Your task to perform on an android device: Do I have any events today? Image 0: 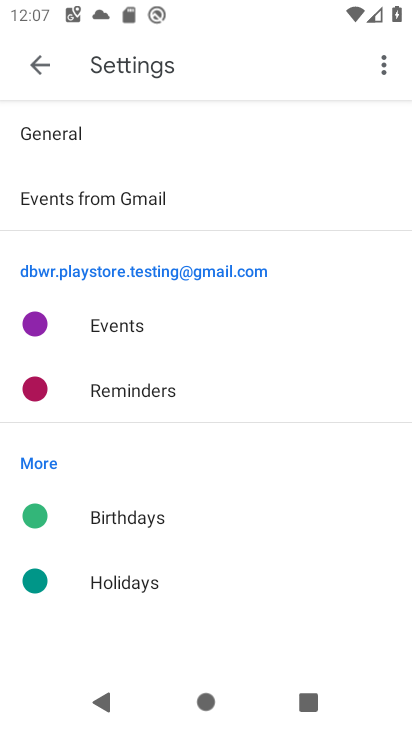
Step 0: press home button
Your task to perform on an android device: Do I have any events today? Image 1: 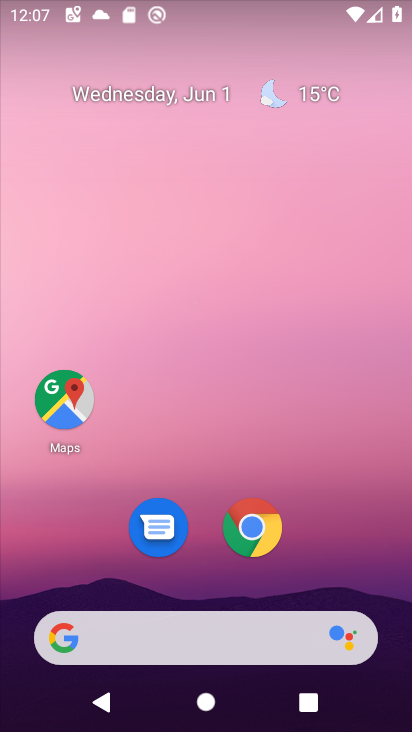
Step 1: drag from (324, 578) to (276, 2)
Your task to perform on an android device: Do I have any events today? Image 2: 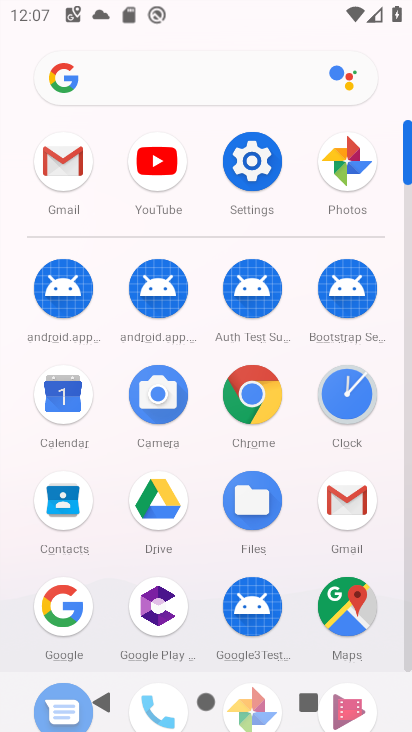
Step 2: click (61, 392)
Your task to perform on an android device: Do I have any events today? Image 3: 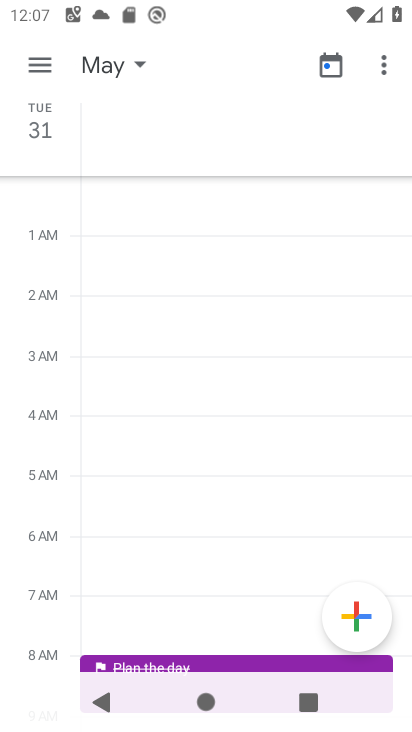
Step 3: click (334, 65)
Your task to perform on an android device: Do I have any events today? Image 4: 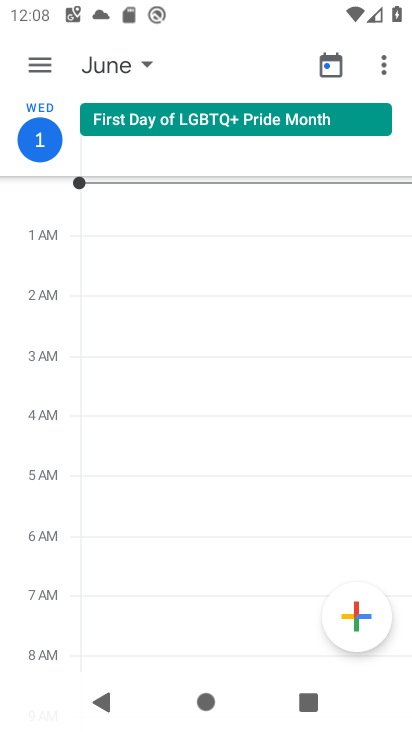
Step 4: click (42, 58)
Your task to perform on an android device: Do I have any events today? Image 5: 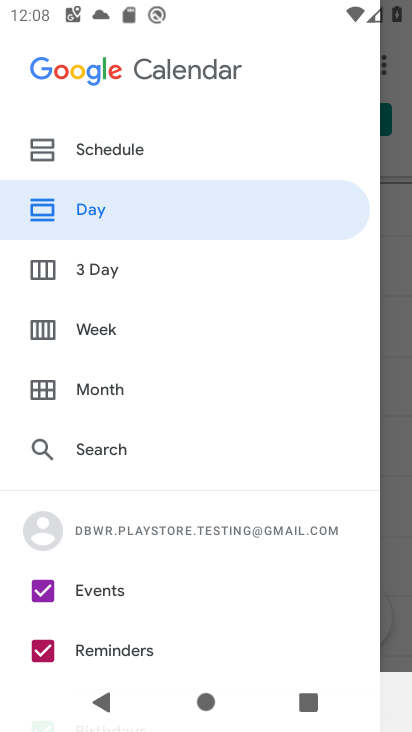
Step 5: drag from (149, 406) to (157, 352)
Your task to perform on an android device: Do I have any events today? Image 6: 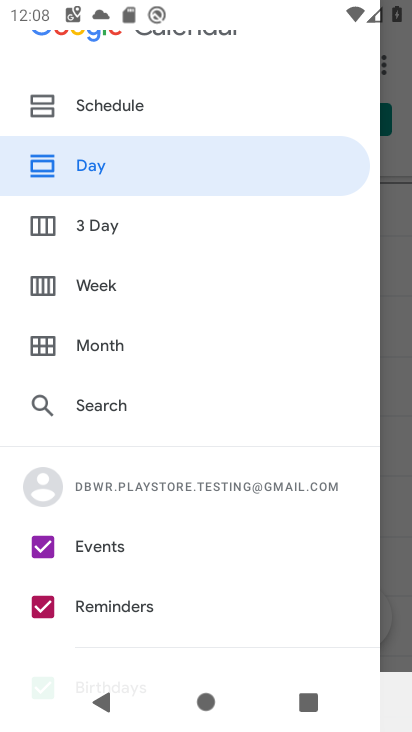
Step 6: click (40, 601)
Your task to perform on an android device: Do I have any events today? Image 7: 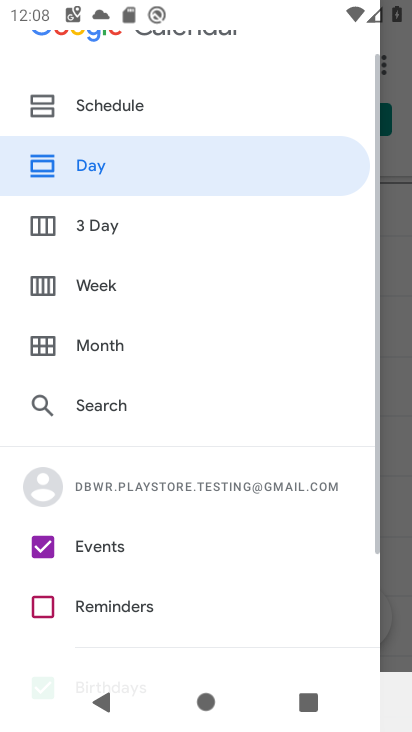
Step 7: drag from (192, 595) to (201, 181)
Your task to perform on an android device: Do I have any events today? Image 8: 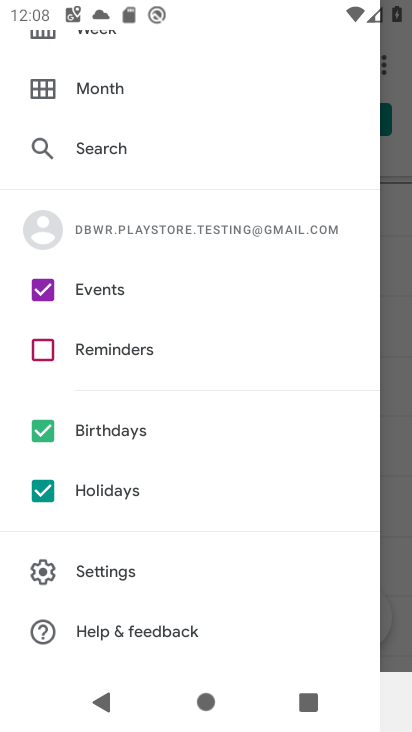
Step 8: click (40, 429)
Your task to perform on an android device: Do I have any events today? Image 9: 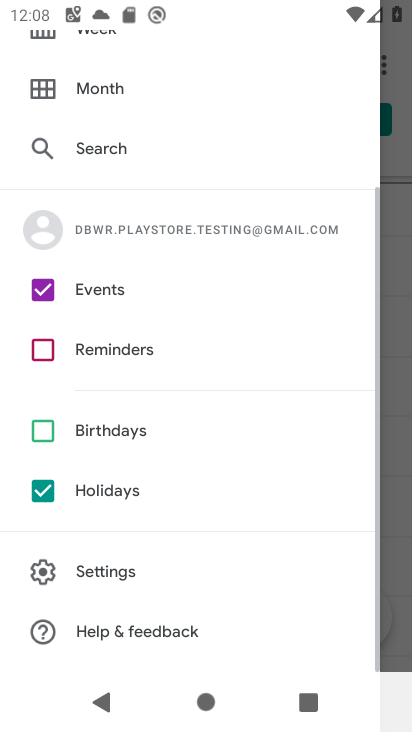
Step 9: click (45, 495)
Your task to perform on an android device: Do I have any events today? Image 10: 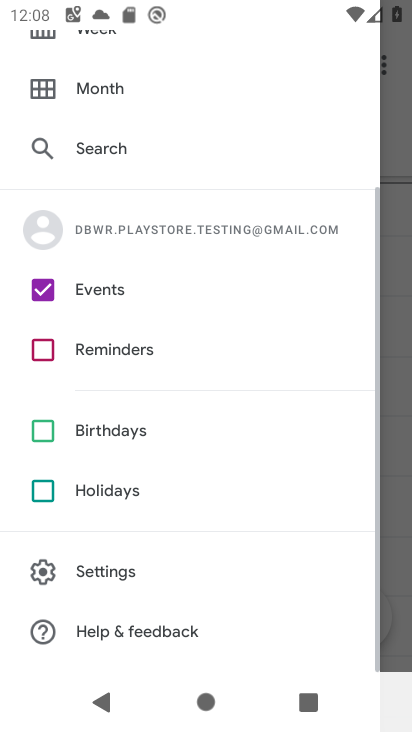
Step 10: drag from (194, 217) to (156, 575)
Your task to perform on an android device: Do I have any events today? Image 11: 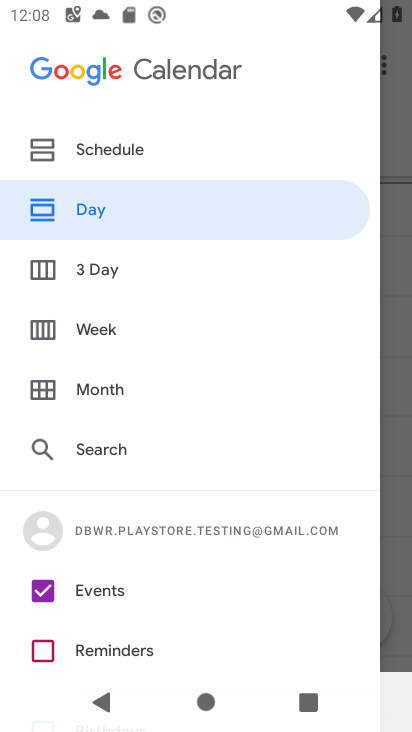
Step 11: click (113, 150)
Your task to perform on an android device: Do I have any events today? Image 12: 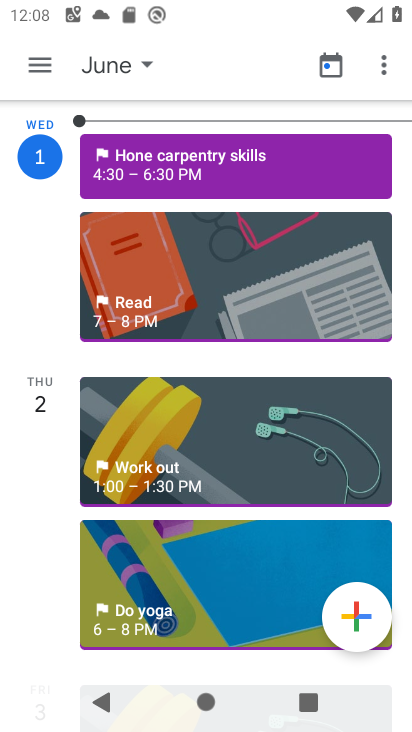
Step 12: click (159, 170)
Your task to perform on an android device: Do I have any events today? Image 13: 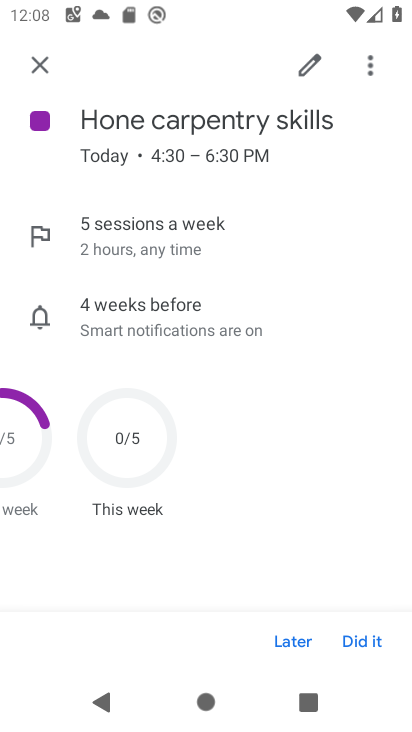
Step 13: task complete